Your task to perform on an android device: open a new tab in the chrome app Image 0: 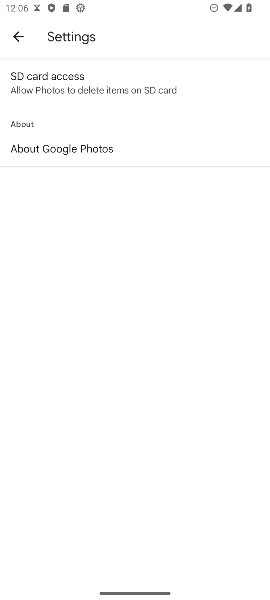
Step 0: press back button
Your task to perform on an android device: open a new tab in the chrome app Image 1: 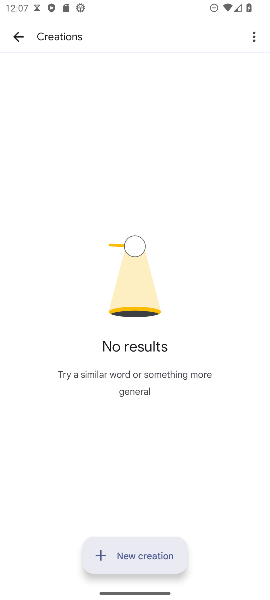
Step 1: press home button
Your task to perform on an android device: open a new tab in the chrome app Image 2: 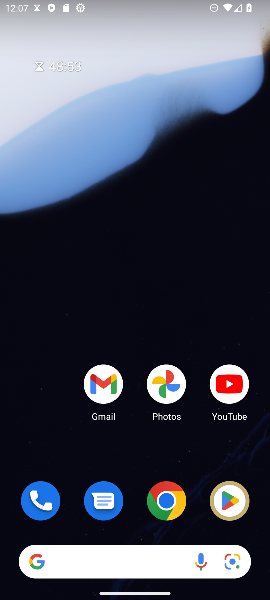
Step 2: click (162, 520)
Your task to perform on an android device: open a new tab in the chrome app Image 3: 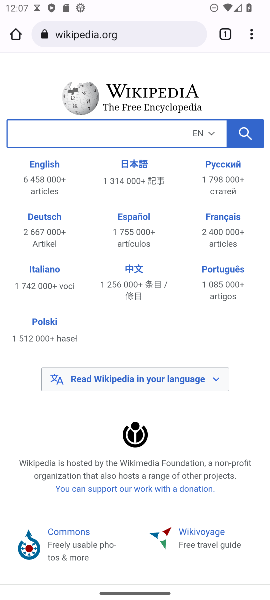
Step 3: click (229, 35)
Your task to perform on an android device: open a new tab in the chrome app Image 4: 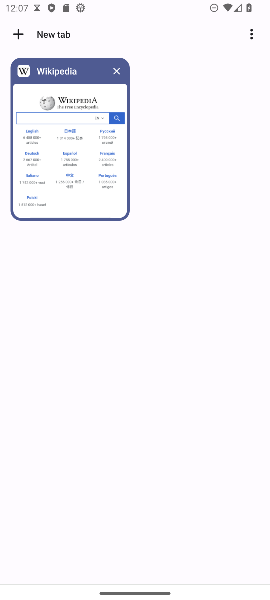
Step 4: click (23, 35)
Your task to perform on an android device: open a new tab in the chrome app Image 5: 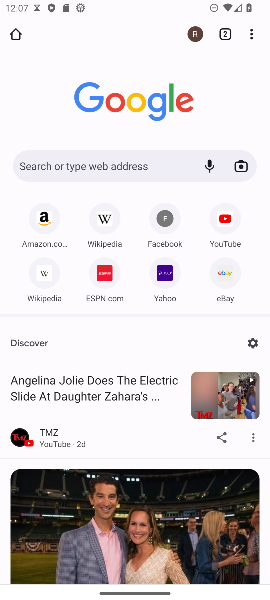
Step 5: task complete